Your task to perform on an android device: Open notification settings Image 0: 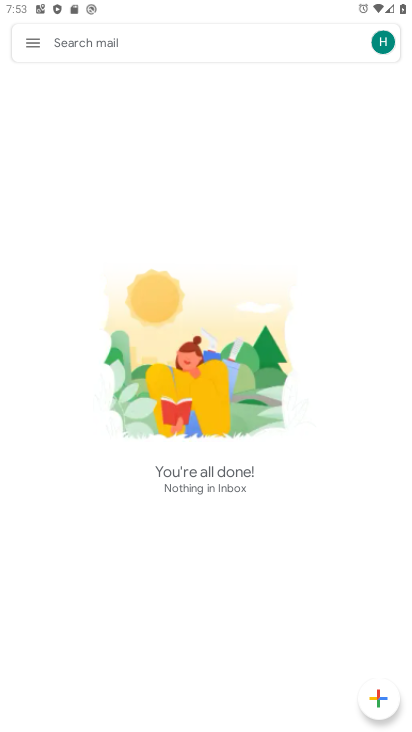
Step 0: press home button
Your task to perform on an android device: Open notification settings Image 1: 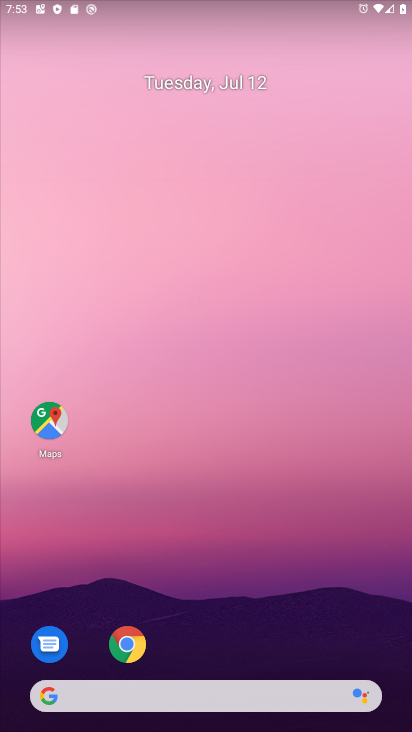
Step 1: drag from (203, 670) to (282, 167)
Your task to perform on an android device: Open notification settings Image 2: 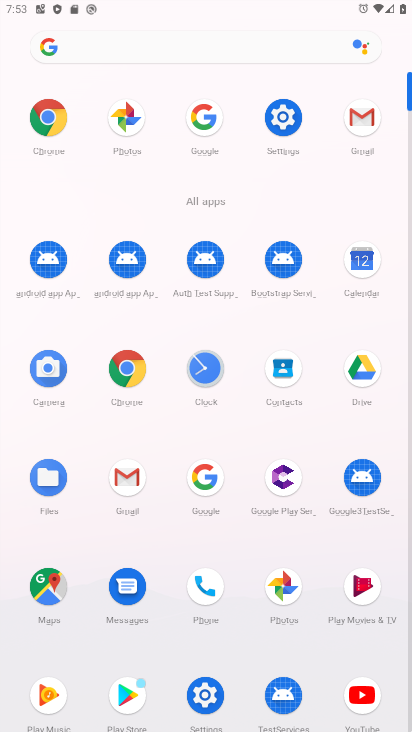
Step 2: click (283, 111)
Your task to perform on an android device: Open notification settings Image 3: 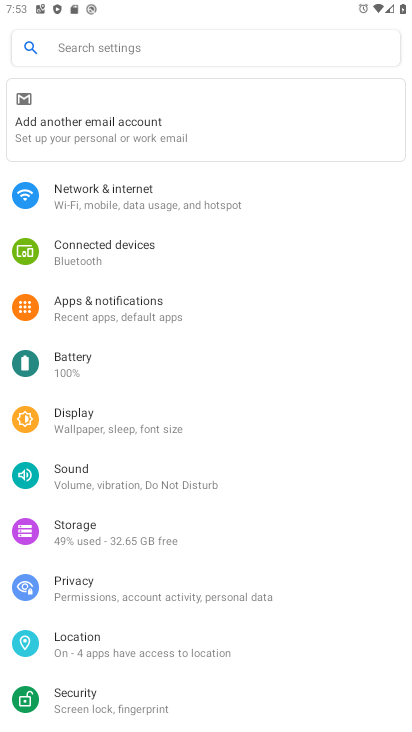
Step 3: click (110, 316)
Your task to perform on an android device: Open notification settings Image 4: 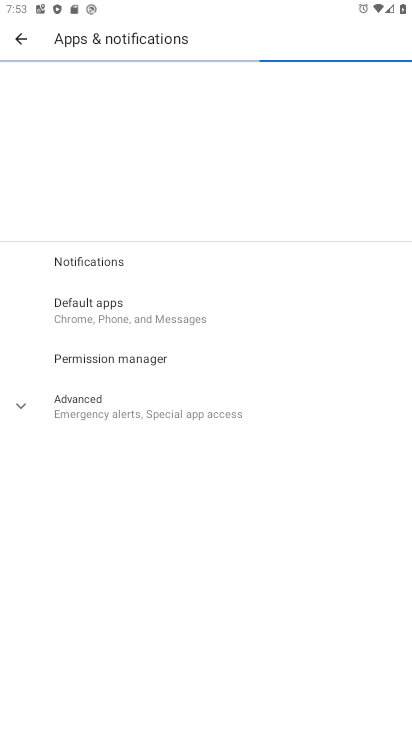
Step 4: drag from (136, 661) to (188, 291)
Your task to perform on an android device: Open notification settings Image 5: 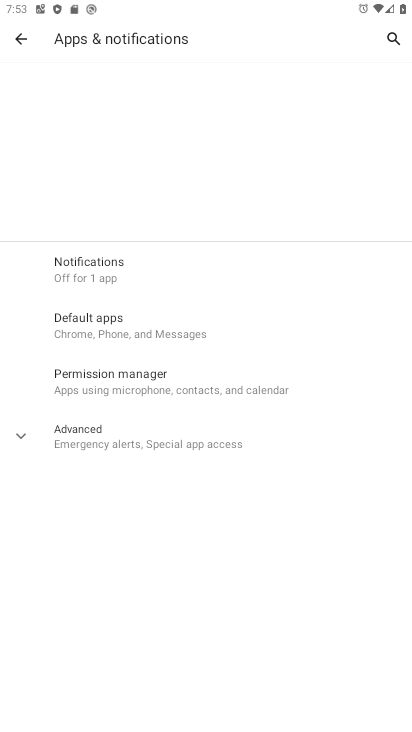
Step 5: click (107, 417)
Your task to perform on an android device: Open notification settings Image 6: 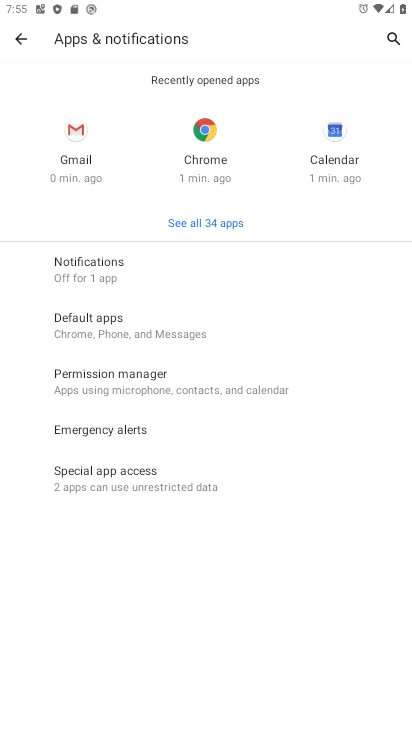
Step 6: task complete